Your task to perform on an android device: Empty the shopping cart on newegg.com. Search for "razer blade" on newegg.com, select the first entry, and add it to the cart. Image 0: 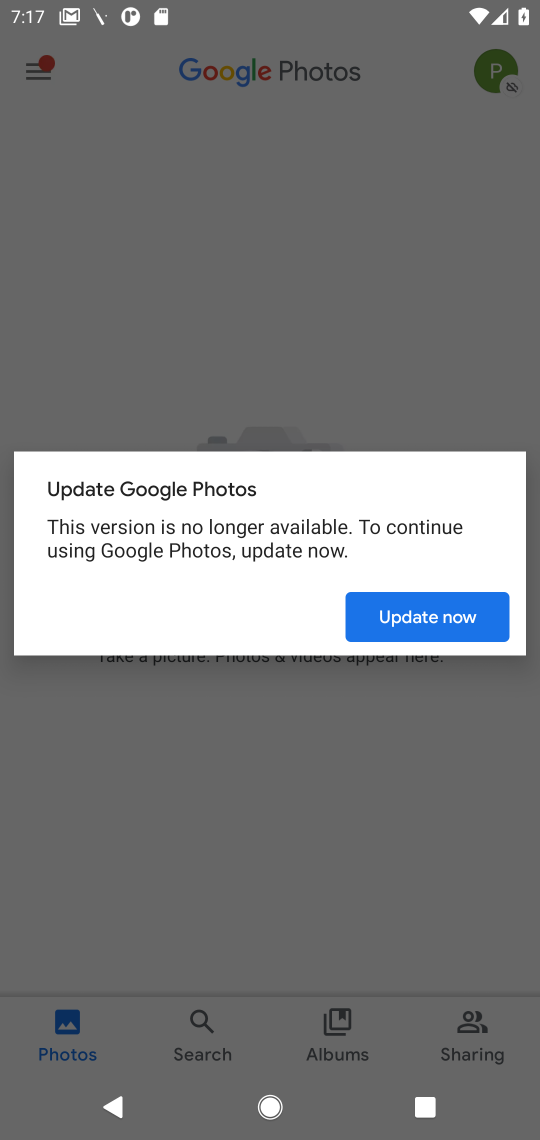
Step 0: press home button
Your task to perform on an android device: Empty the shopping cart on newegg.com. Search for "razer blade" on newegg.com, select the first entry, and add it to the cart. Image 1: 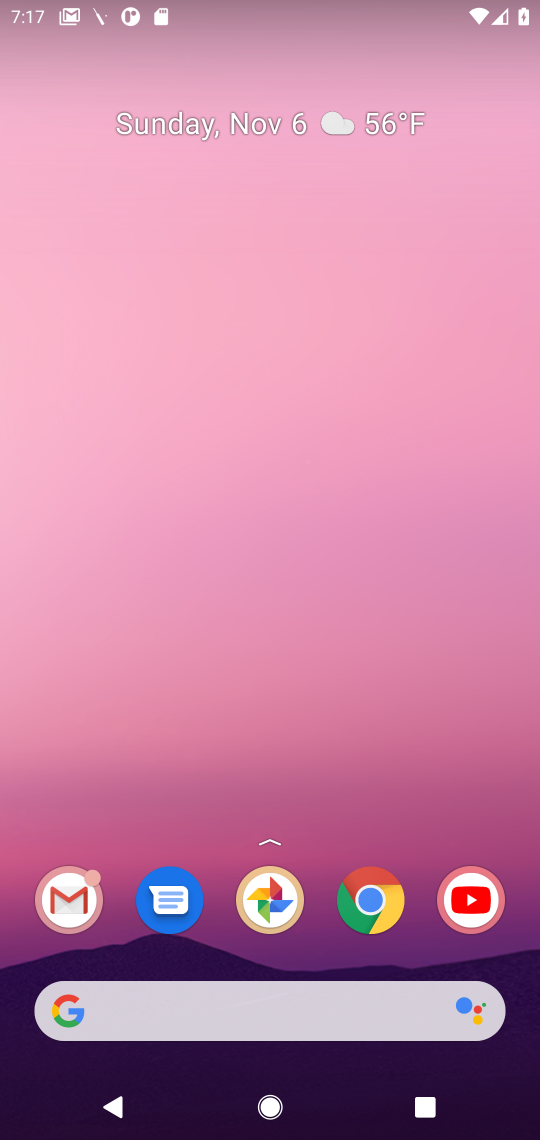
Step 1: drag from (318, 953) to (302, 198)
Your task to perform on an android device: Empty the shopping cart on newegg.com. Search for "razer blade" on newegg.com, select the first entry, and add it to the cart. Image 2: 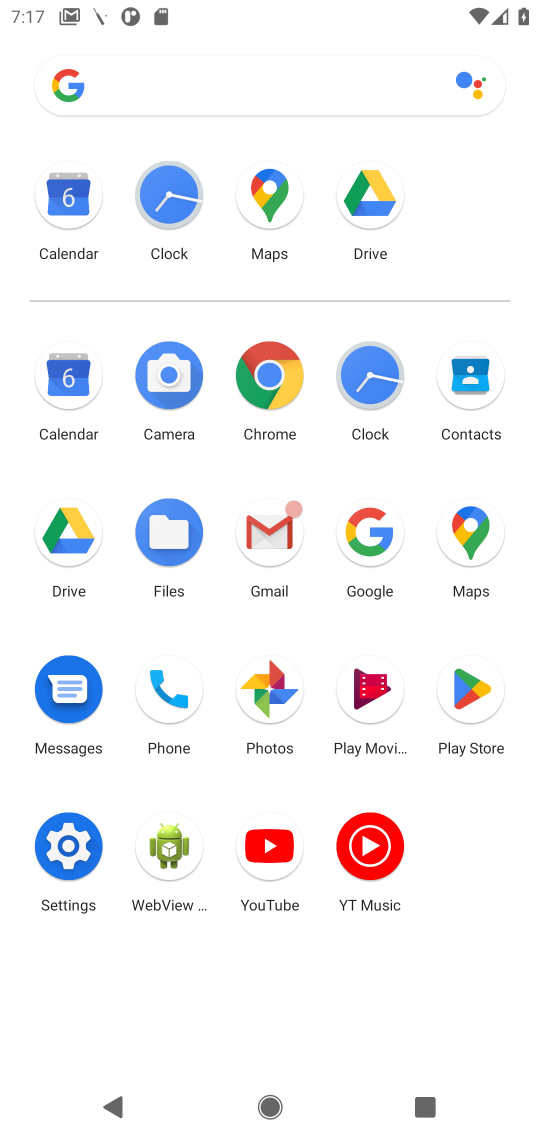
Step 2: click (276, 381)
Your task to perform on an android device: Empty the shopping cart on newegg.com. Search for "razer blade" on newegg.com, select the first entry, and add it to the cart. Image 3: 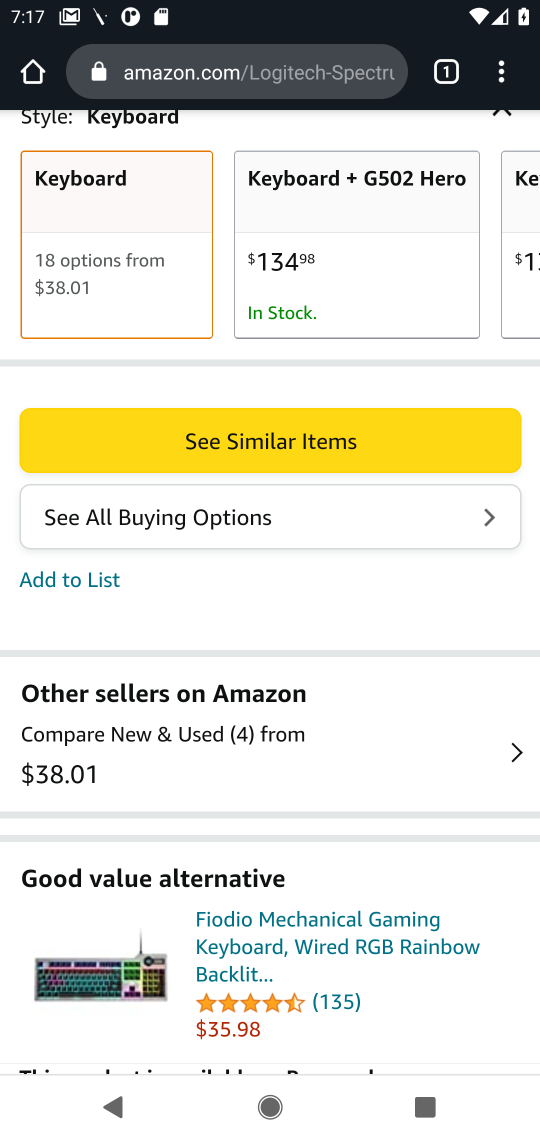
Step 3: click (278, 63)
Your task to perform on an android device: Empty the shopping cart on newegg.com. Search for "razer blade" on newegg.com, select the first entry, and add it to the cart. Image 4: 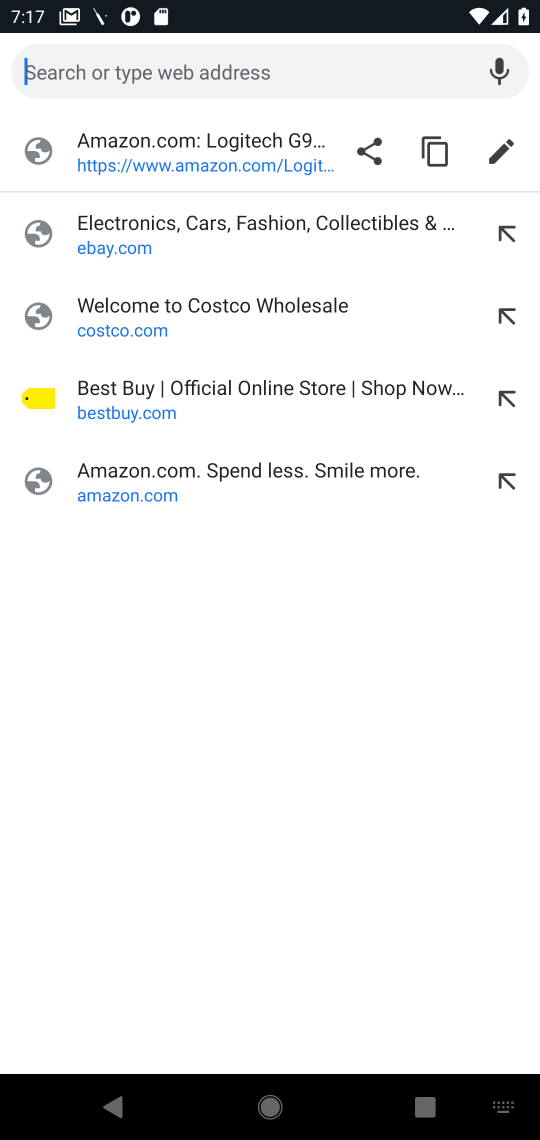
Step 4: type "newegg.com"
Your task to perform on an android device: Empty the shopping cart on newegg.com. Search for "razer blade" on newegg.com, select the first entry, and add it to the cart. Image 5: 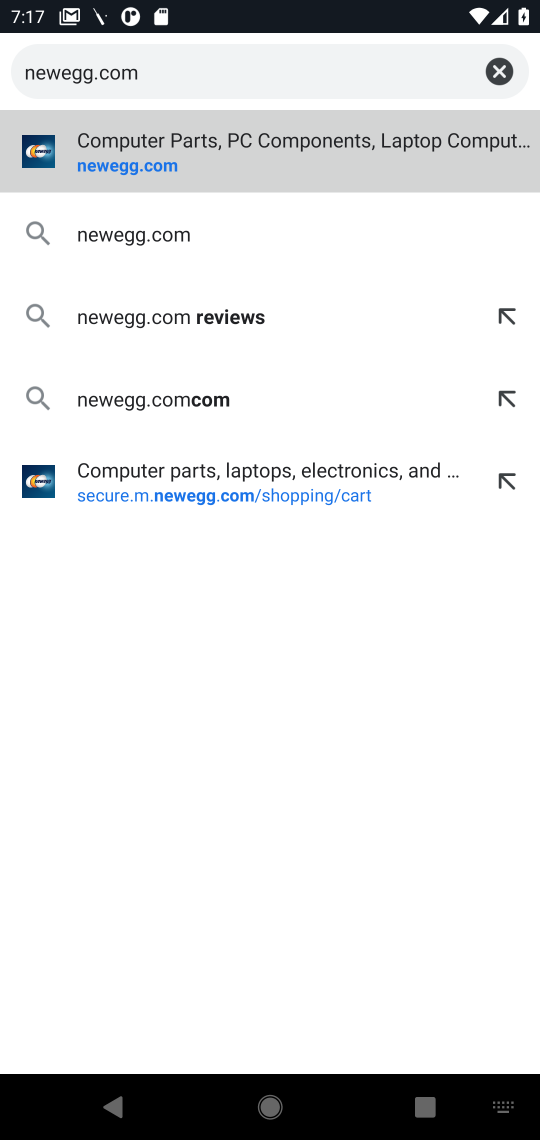
Step 5: press enter
Your task to perform on an android device: Empty the shopping cart on newegg.com. Search for "razer blade" on newegg.com, select the first entry, and add it to the cart. Image 6: 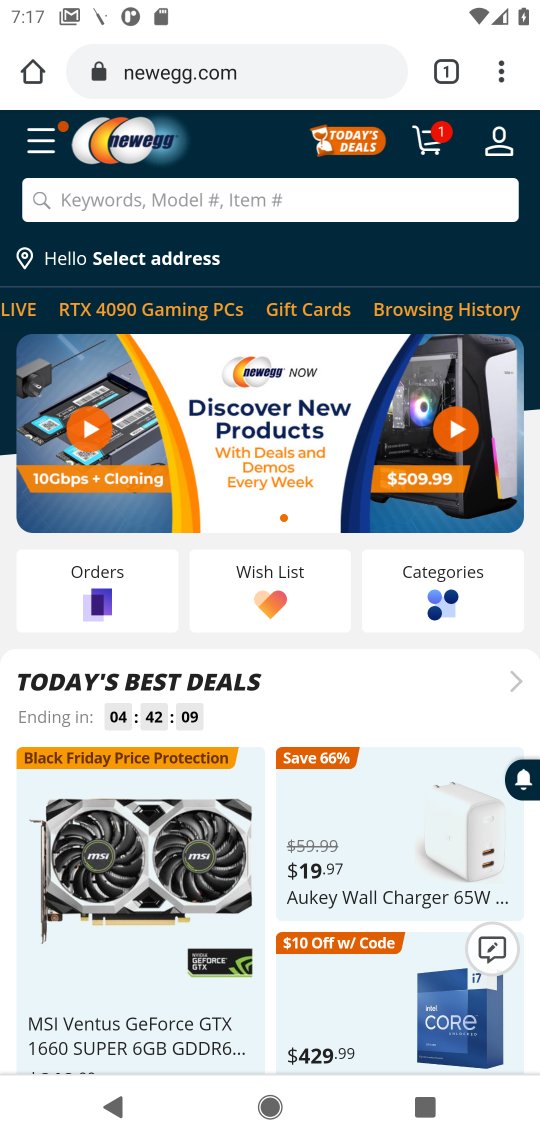
Step 6: click (449, 134)
Your task to perform on an android device: Empty the shopping cart on newegg.com. Search for "razer blade" on newegg.com, select the first entry, and add it to the cart. Image 7: 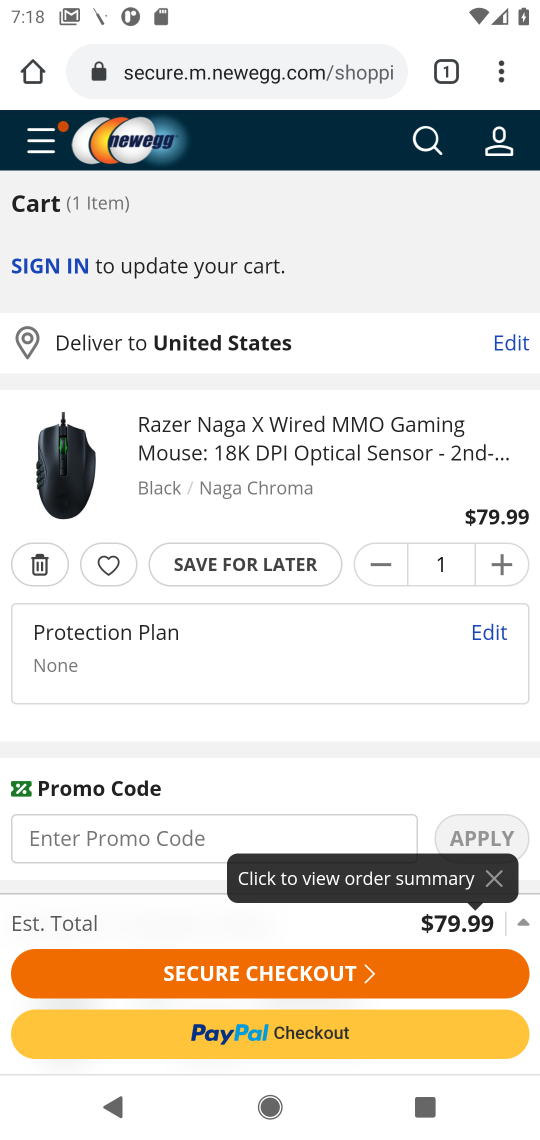
Step 7: click (43, 564)
Your task to perform on an android device: Empty the shopping cart on newegg.com. Search for "razer blade" on newegg.com, select the first entry, and add it to the cart. Image 8: 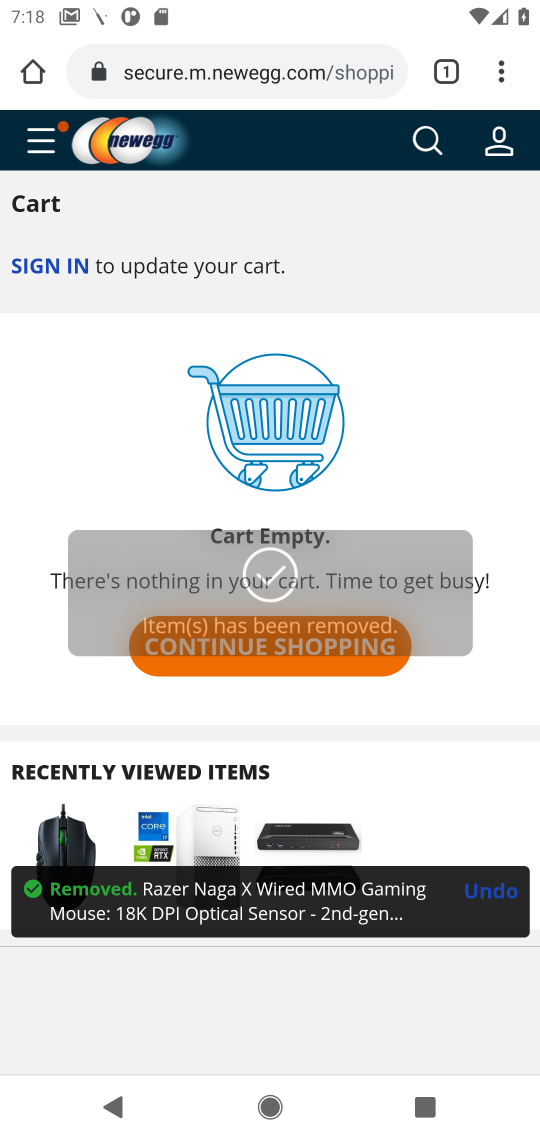
Step 8: click (431, 144)
Your task to perform on an android device: Empty the shopping cart on newegg.com. Search for "razer blade" on newegg.com, select the first entry, and add it to the cart. Image 9: 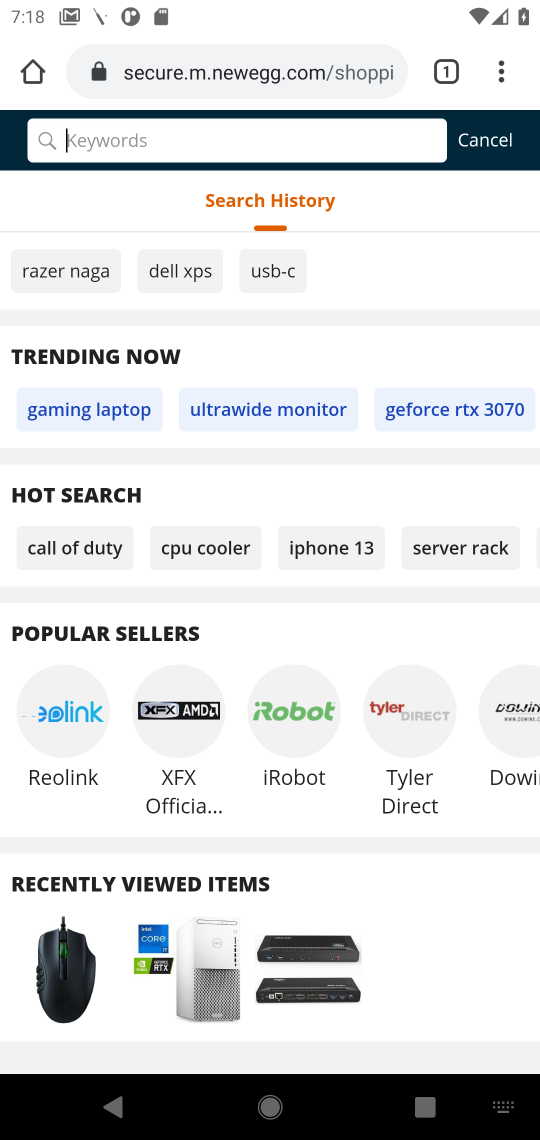
Step 9: type "razer blade"
Your task to perform on an android device: Empty the shopping cart on newegg.com. Search for "razer blade" on newegg.com, select the first entry, and add it to the cart. Image 10: 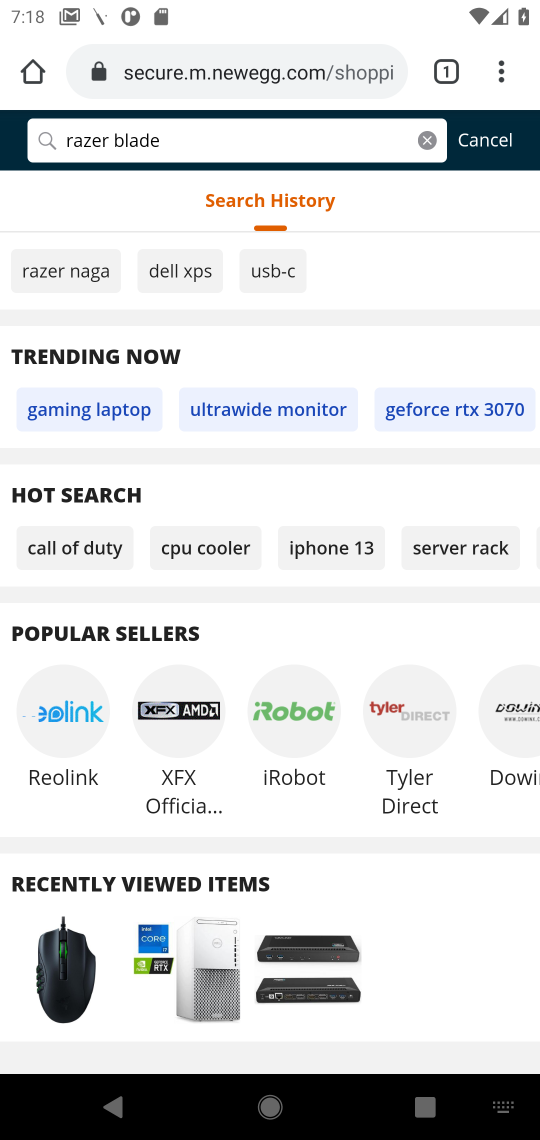
Step 10: press enter
Your task to perform on an android device: Empty the shopping cart on newegg.com. Search for "razer blade" on newegg.com, select the first entry, and add it to the cart. Image 11: 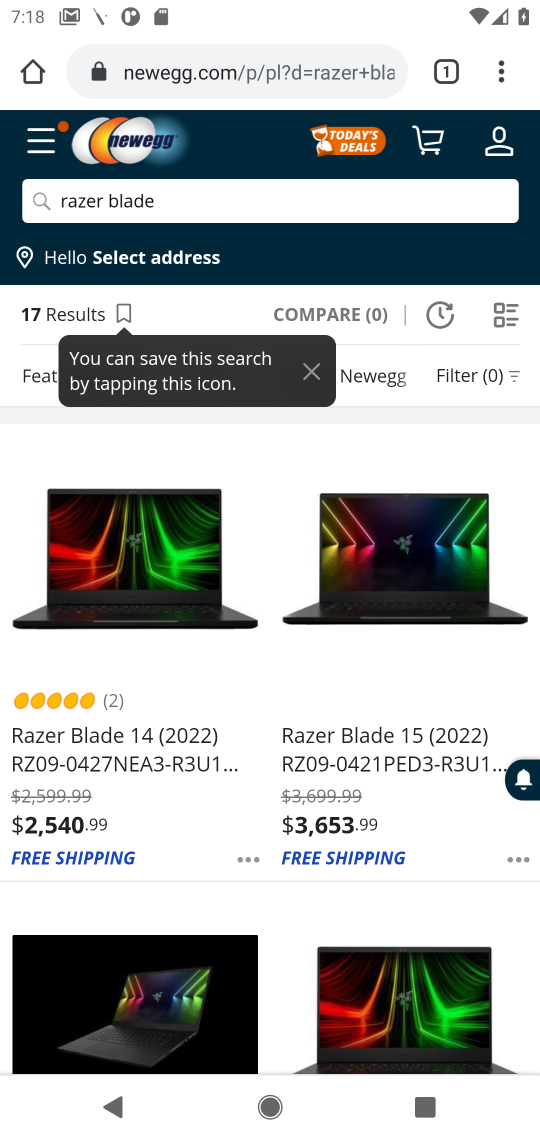
Step 11: click (119, 738)
Your task to perform on an android device: Empty the shopping cart on newegg.com. Search for "razer blade" on newegg.com, select the first entry, and add it to the cart. Image 12: 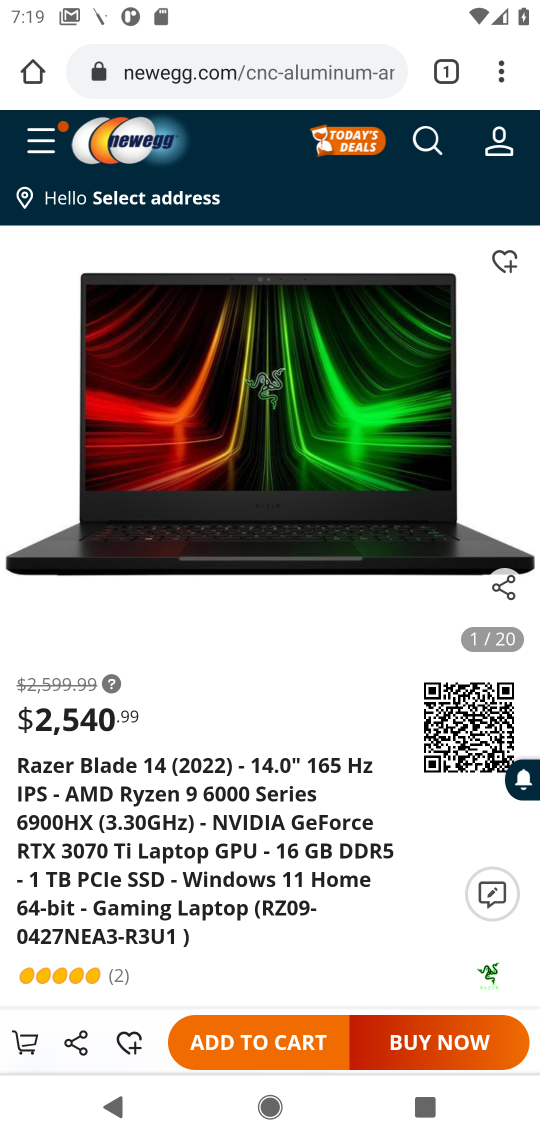
Step 12: click (259, 1037)
Your task to perform on an android device: Empty the shopping cart on newegg.com. Search for "razer blade" on newegg.com, select the first entry, and add it to the cart. Image 13: 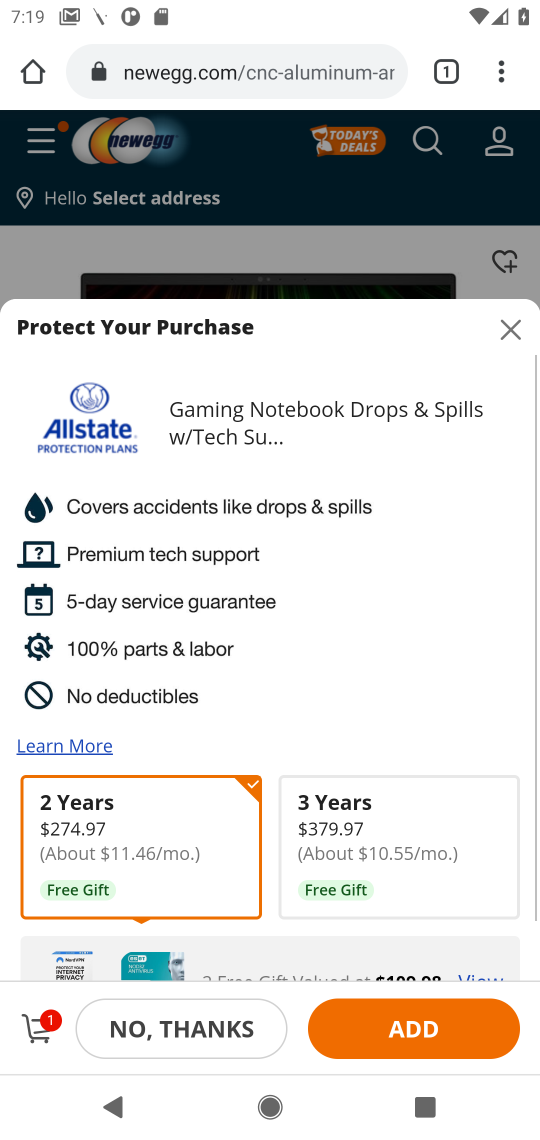
Step 13: task complete